Your task to perform on an android device: turn off smart reply in the gmail app Image 0: 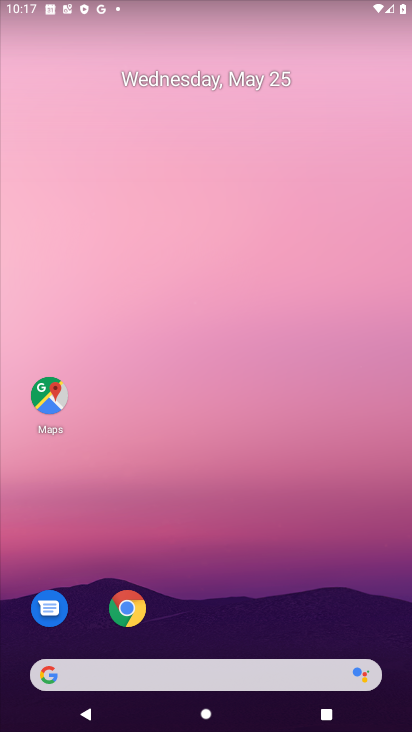
Step 0: drag from (238, 613) to (256, 11)
Your task to perform on an android device: turn off smart reply in the gmail app Image 1: 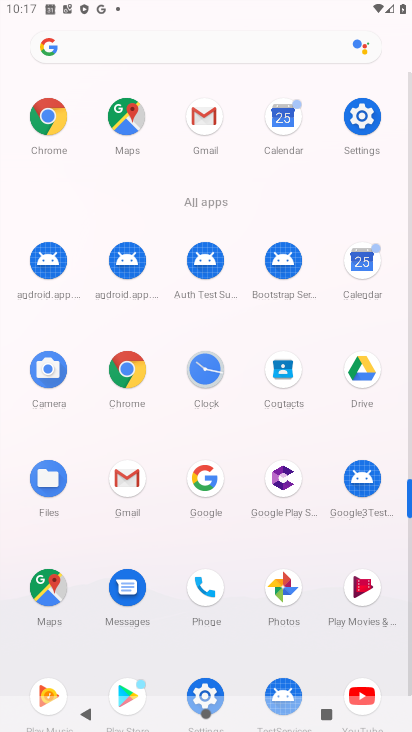
Step 1: click (198, 118)
Your task to perform on an android device: turn off smart reply in the gmail app Image 2: 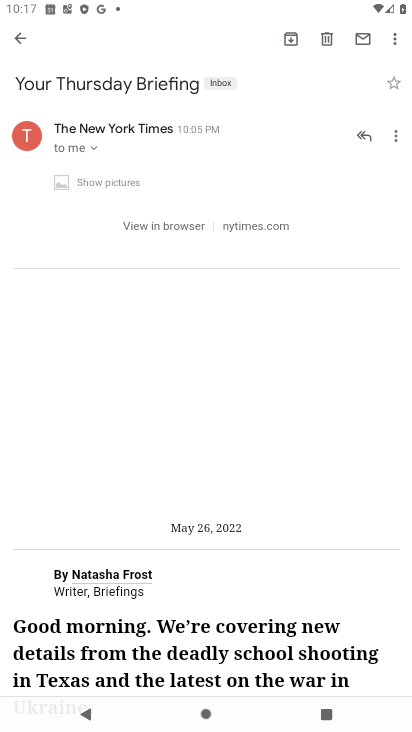
Step 2: click (22, 37)
Your task to perform on an android device: turn off smart reply in the gmail app Image 3: 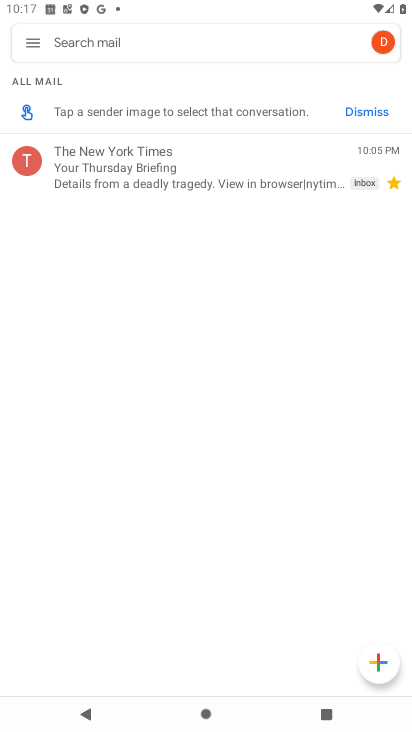
Step 3: click (27, 41)
Your task to perform on an android device: turn off smart reply in the gmail app Image 4: 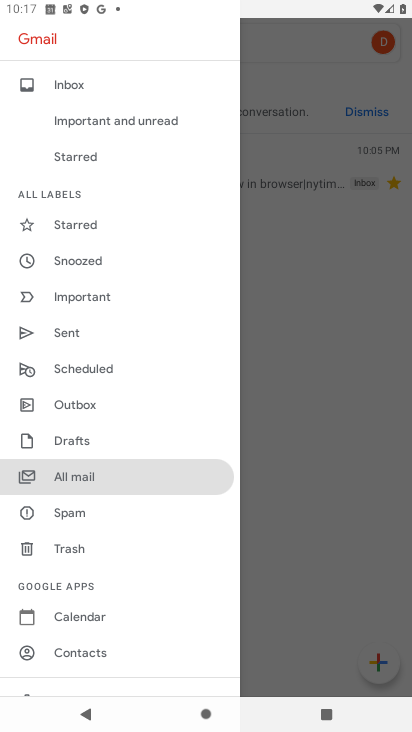
Step 4: drag from (154, 614) to (168, 462)
Your task to perform on an android device: turn off smart reply in the gmail app Image 5: 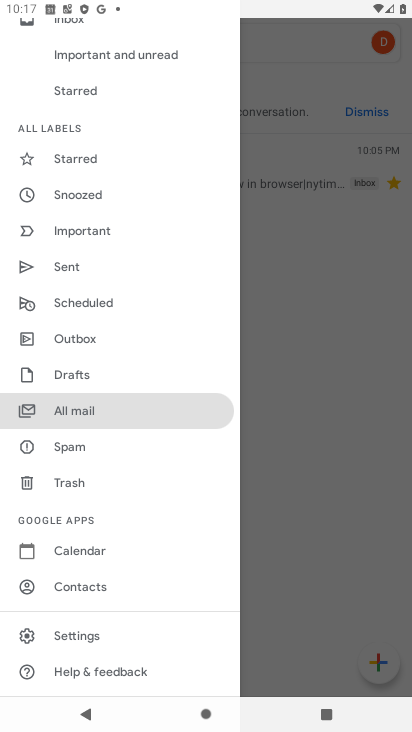
Step 5: click (69, 638)
Your task to perform on an android device: turn off smart reply in the gmail app Image 6: 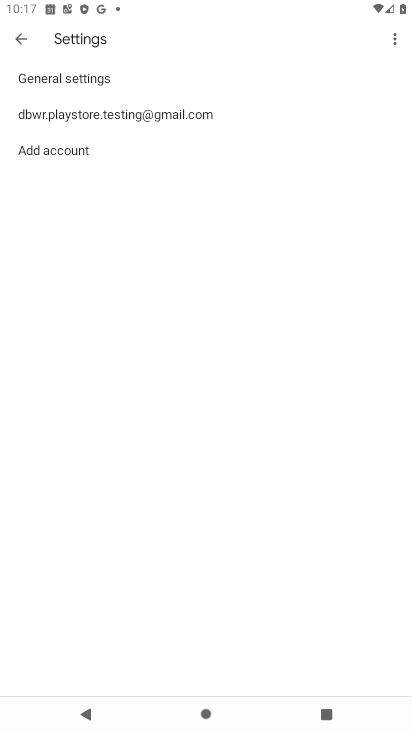
Step 6: click (77, 108)
Your task to perform on an android device: turn off smart reply in the gmail app Image 7: 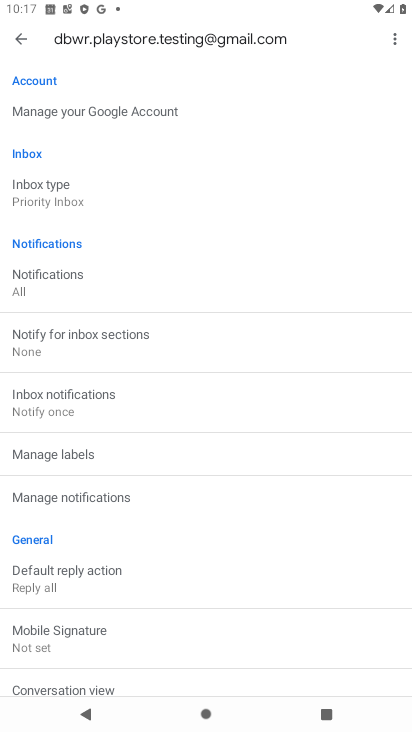
Step 7: drag from (157, 592) to (163, 311)
Your task to perform on an android device: turn off smart reply in the gmail app Image 8: 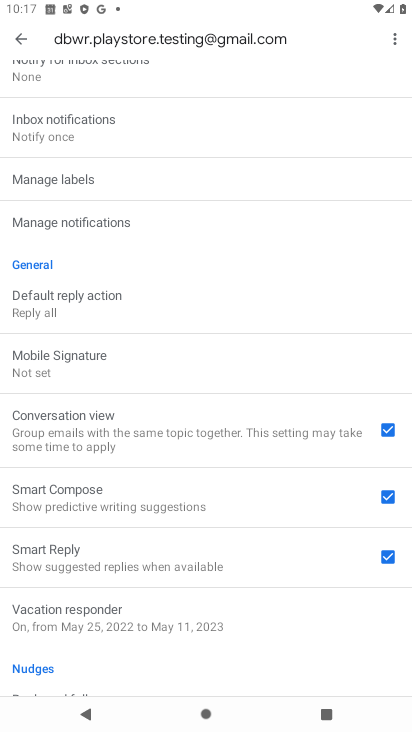
Step 8: click (388, 557)
Your task to perform on an android device: turn off smart reply in the gmail app Image 9: 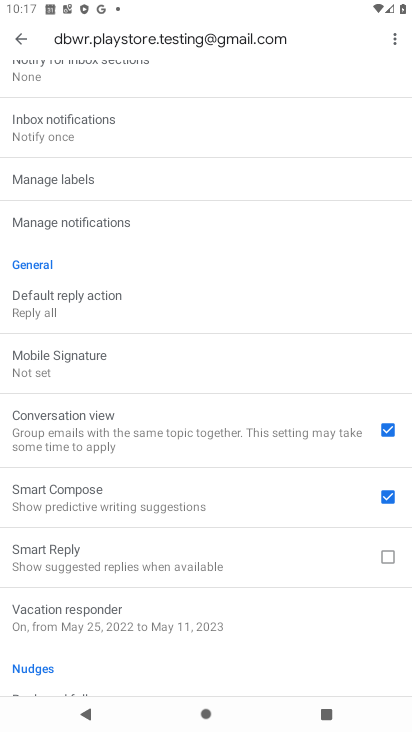
Step 9: task complete